Your task to perform on an android device: check out phone information Image 0: 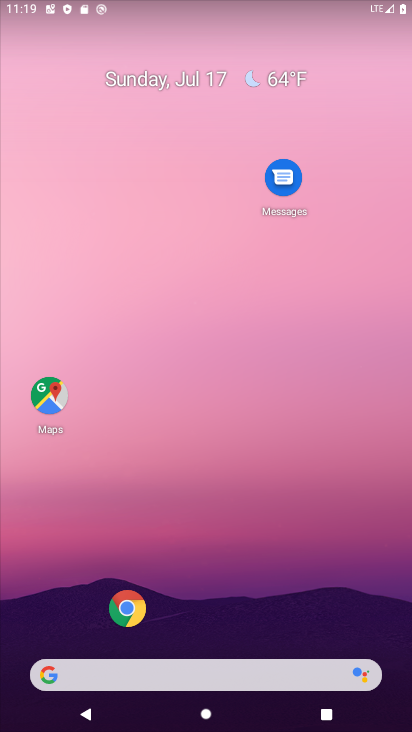
Step 0: click (28, 393)
Your task to perform on an android device: check out phone information Image 1: 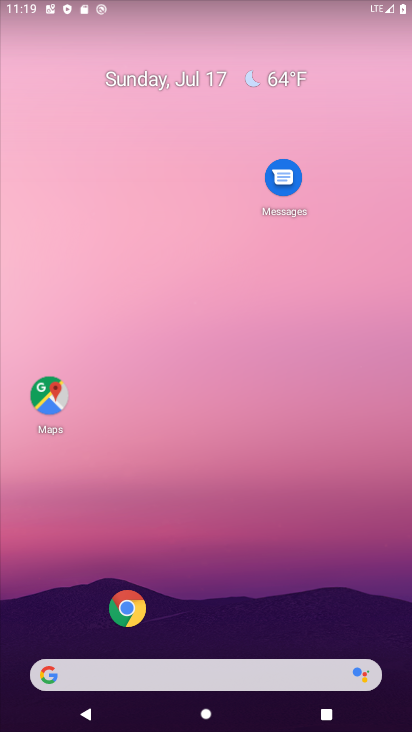
Step 1: click (41, 396)
Your task to perform on an android device: check out phone information Image 2: 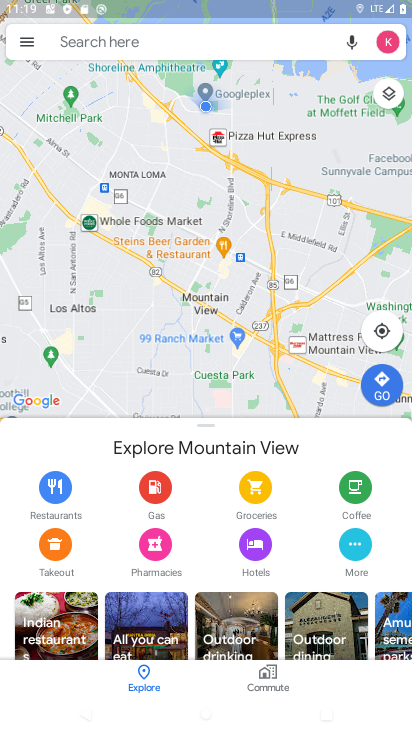
Step 2: press home button
Your task to perform on an android device: check out phone information Image 3: 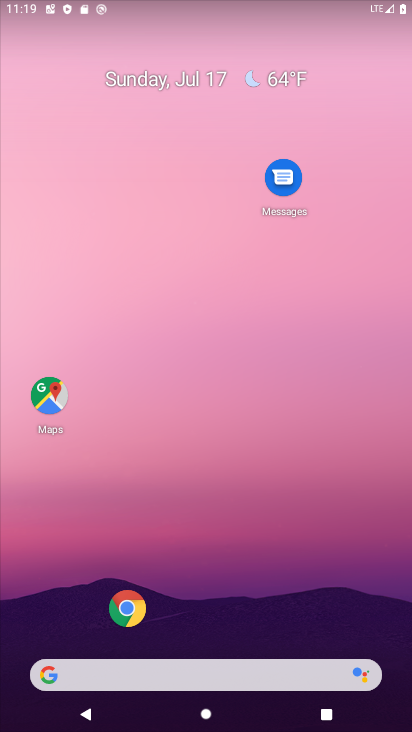
Step 3: drag from (49, 709) to (232, 14)
Your task to perform on an android device: check out phone information Image 4: 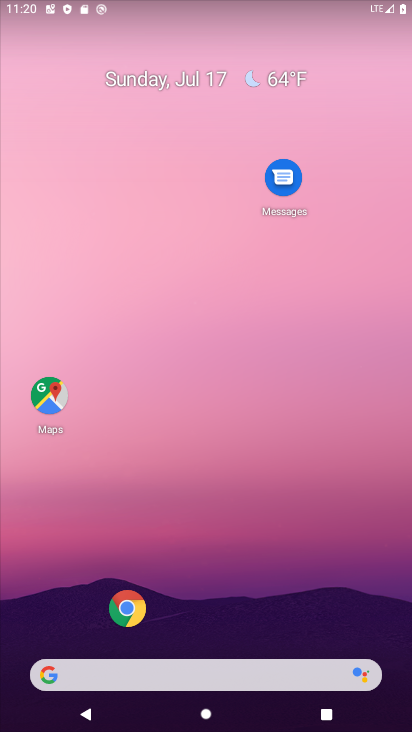
Step 4: drag from (82, 658) to (199, 86)
Your task to perform on an android device: check out phone information Image 5: 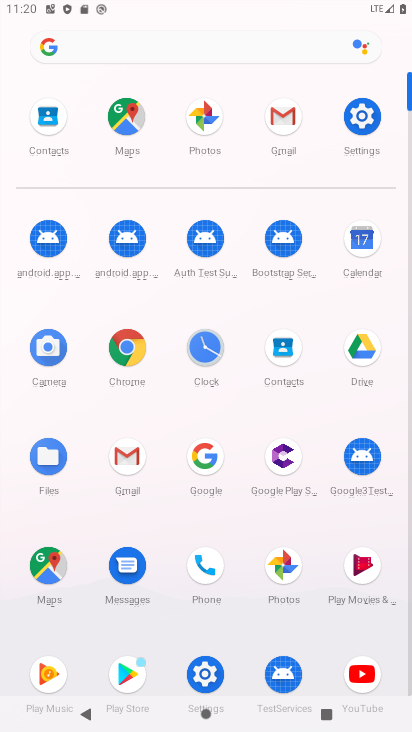
Step 5: click (202, 571)
Your task to perform on an android device: check out phone information Image 6: 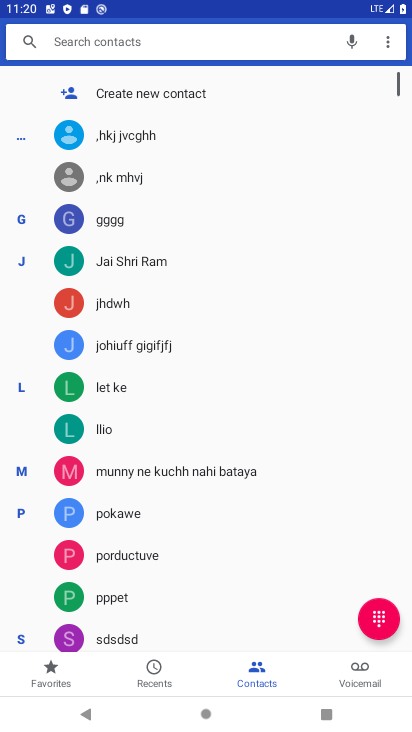
Step 6: task complete